Your task to perform on an android device: turn off notifications settings in the gmail app Image 0: 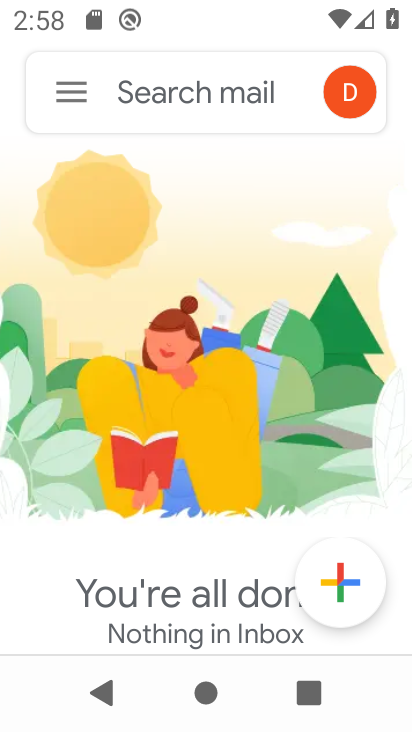
Step 0: press home button
Your task to perform on an android device: turn off notifications settings in the gmail app Image 1: 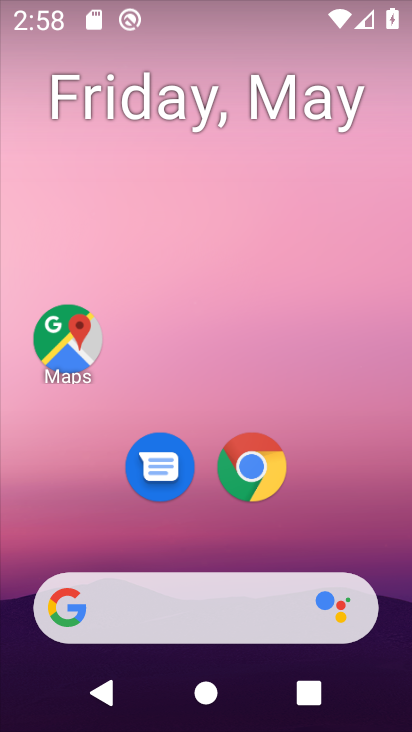
Step 1: drag from (326, 508) to (226, 36)
Your task to perform on an android device: turn off notifications settings in the gmail app Image 2: 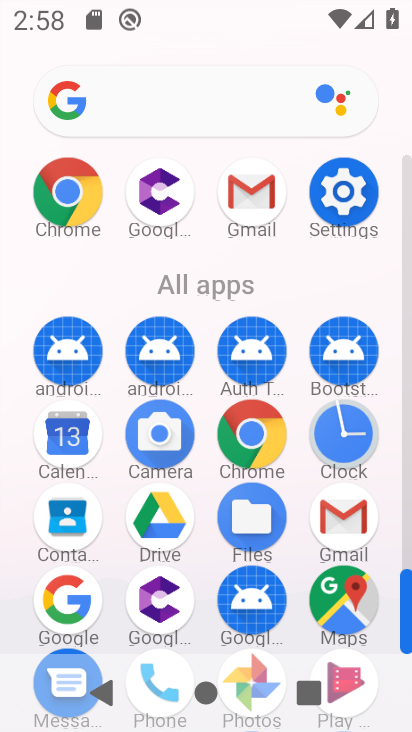
Step 2: click (346, 526)
Your task to perform on an android device: turn off notifications settings in the gmail app Image 3: 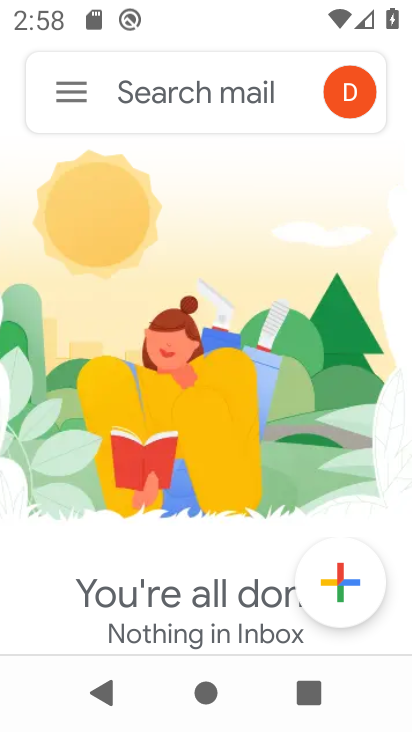
Step 3: click (63, 81)
Your task to perform on an android device: turn off notifications settings in the gmail app Image 4: 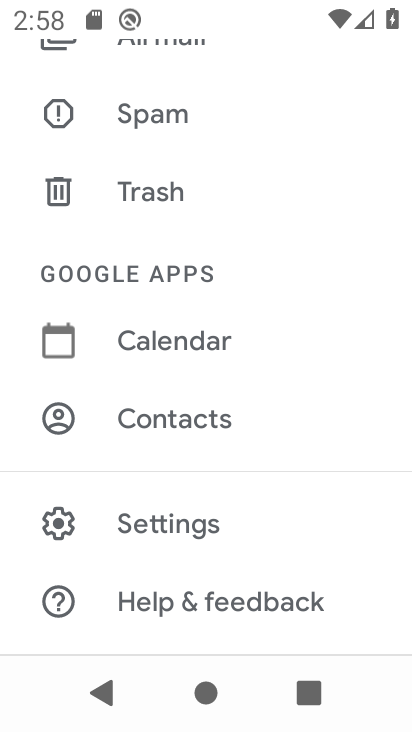
Step 4: click (185, 511)
Your task to perform on an android device: turn off notifications settings in the gmail app Image 5: 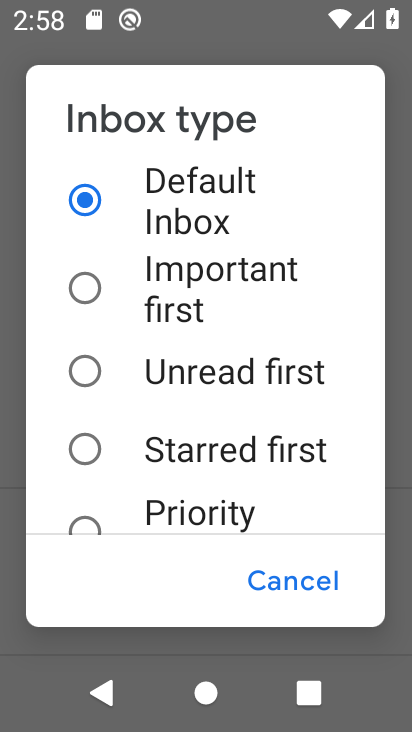
Step 5: click (299, 575)
Your task to perform on an android device: turn off notifications settings in the gmail app Image 6: 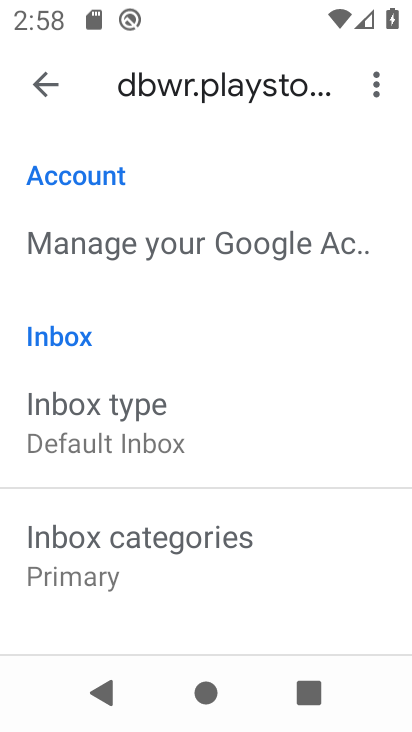
Step 6: drag from (197, 568) to (191, 277)
Your task to perform on an android device: turn off notifications settings in the gmail app Image 7: 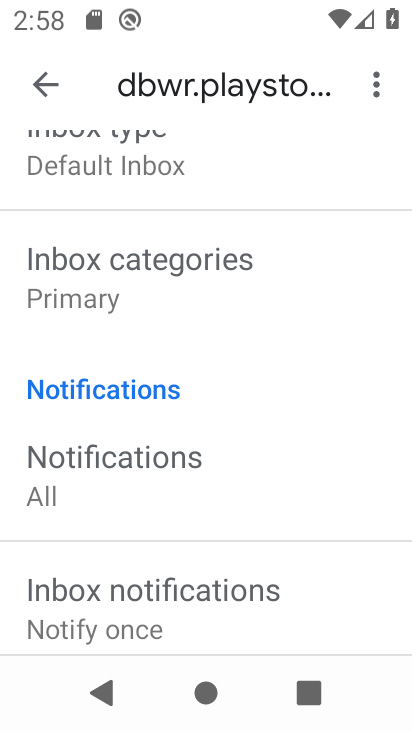
Step 7: click (169, 495)
Your task to perform on an android device: turn off notifications settings in the gmail app Image 8: 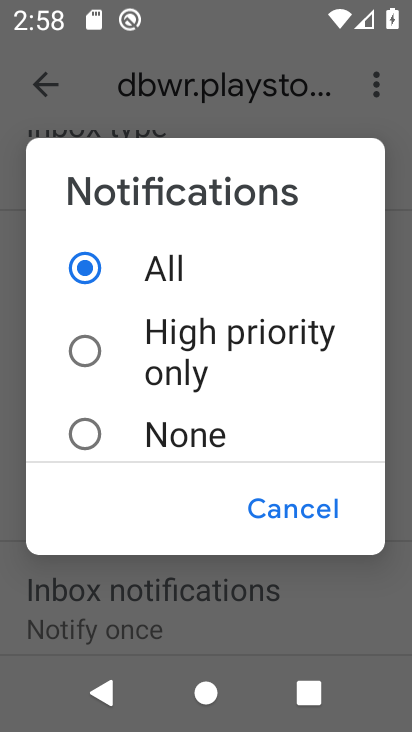
Step 8: click (207, 434)
Your task to perform on an android device: turn off notifications settings in the gmail app Image 9: 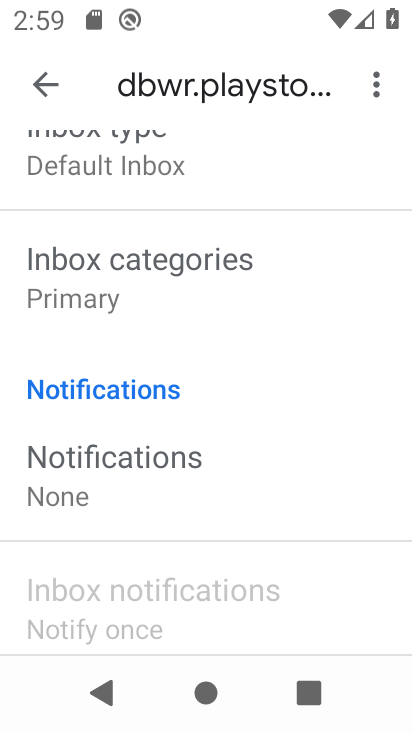
Step 9: task complete